Your task to perform on an android device: find photos in the google photos app Image 0: 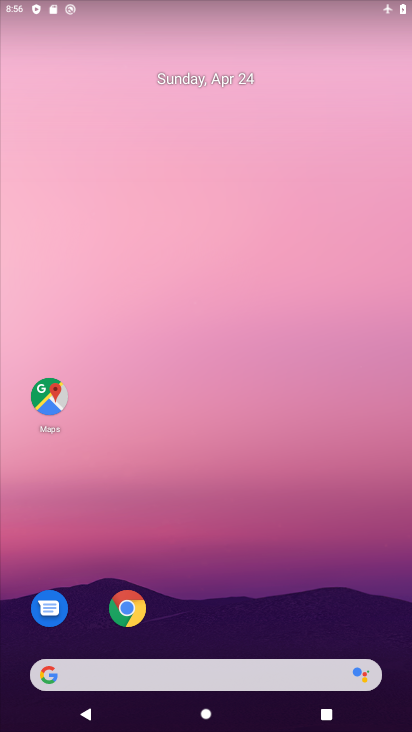
Step 0: drag from (200, 623) to (211, 179)
Your task to perform on an android device: find photos in the google photos app Image 1: 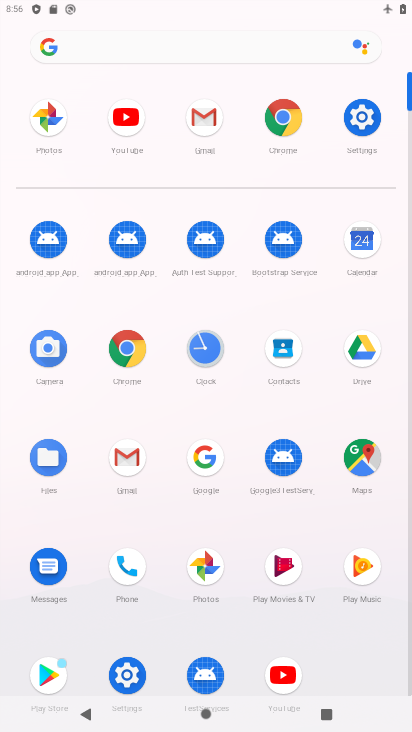
Step 1: click (195, 558)
Your task to perform on an android device: find photos in the google photos app Image 2: 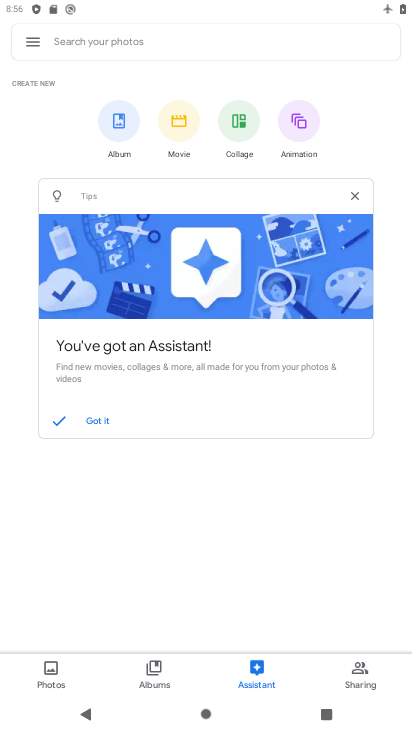
Step 2: click (107, 40)
Your task to perform on an android device: find photos in the google photos app Image 3: 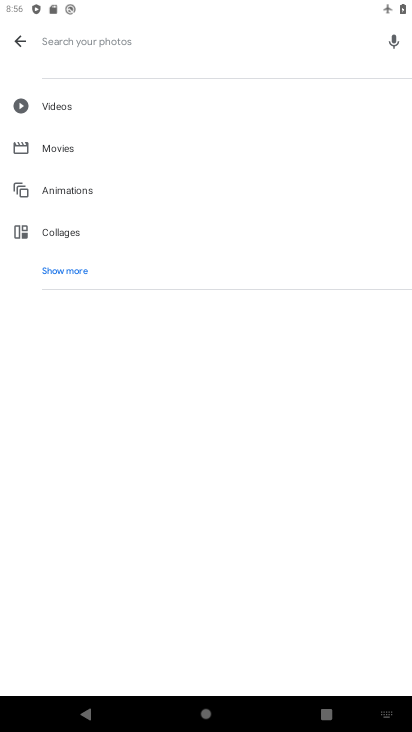
Step 3: type "aa"
Your task to perform on an android device: find photos in the google photos app Image 4: 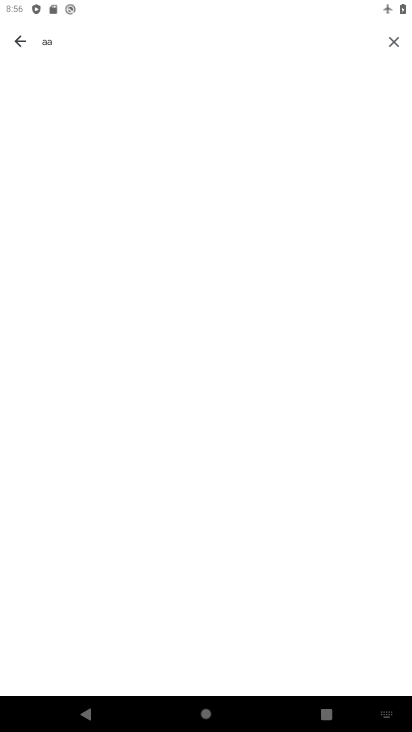
Step 4: type "v"
Your task to perform on an android device: find photos in the google photos app Image 5: 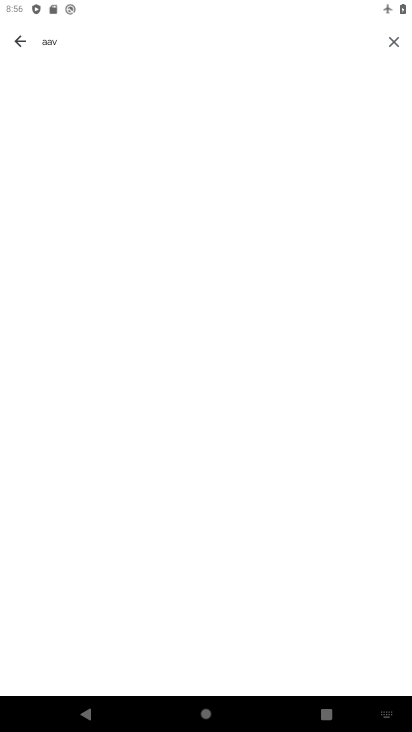
Step 5: task complete